Your task to perform on an android device: Show me popular games on the Play Store Image 0: 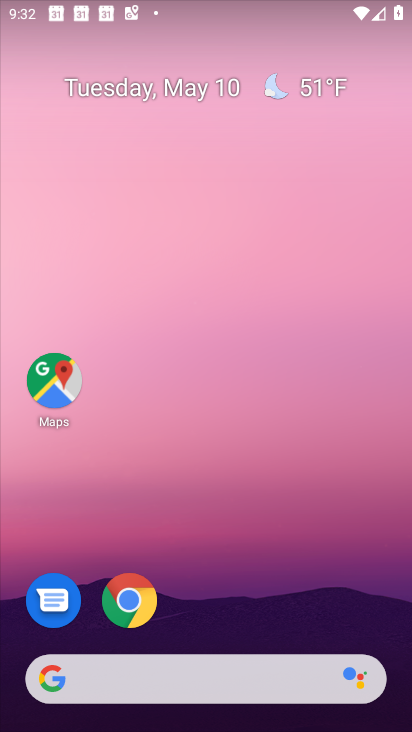
Step 0: drag from (265, 626) to (299, 13)
Your task to perform on an android device: Show me popular games on the Play Store Image 1: 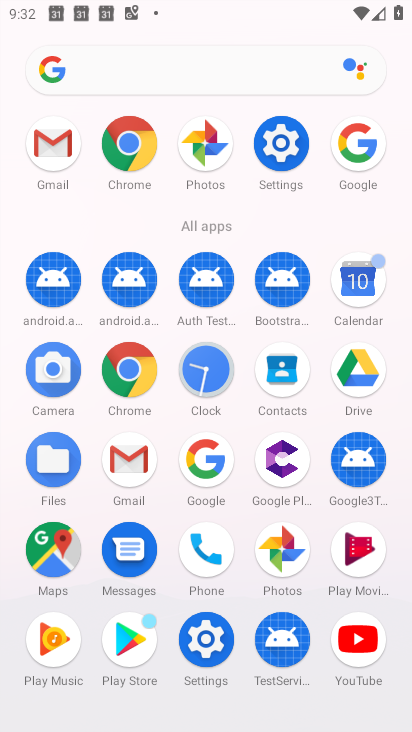
Step 1: drag from (346, 387) to (3, 328)
Your task to perform on an android device: Show me popular games on the Play Store Image 2: 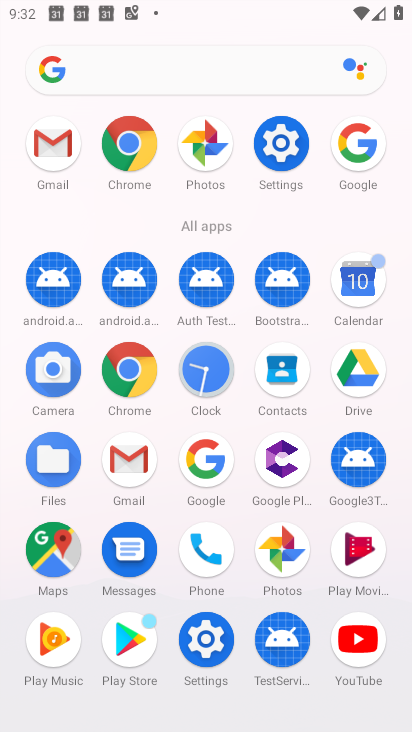
Step 2: drag from (242, 577) to (195, 116)
Your task to perform on an android device: Show me popular games on the Play Store Image 3: 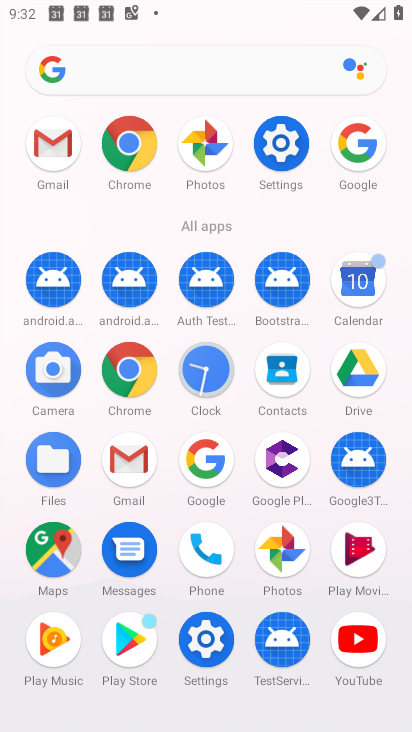
Step 3: click (127, 648)
Your task to perform on an android device: Show me popular games on the Play Store Image 4: 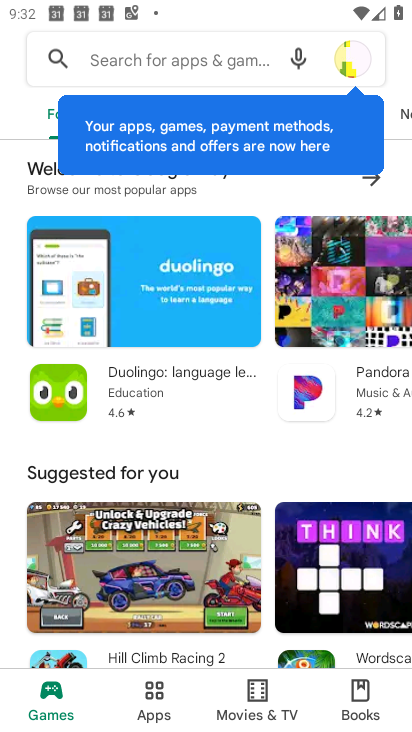
Step 4: click (355, 61)
Your task to perform on an android device: Show me popular games on the Play Store Image 5: 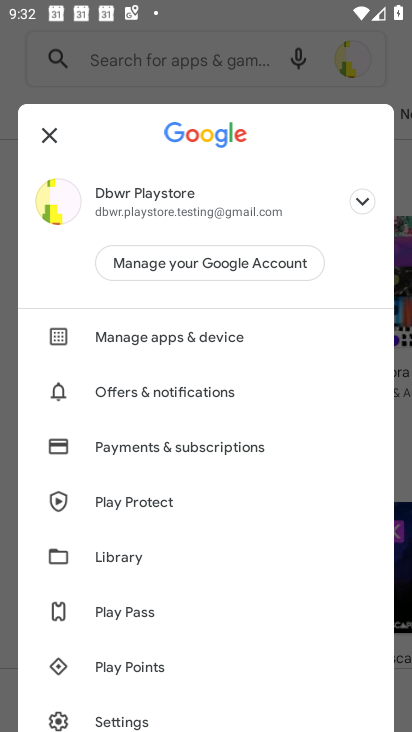
Step 5: click (148, 61)
Your task to perform on an android device: Show me popular games on the Play Store Image 6: 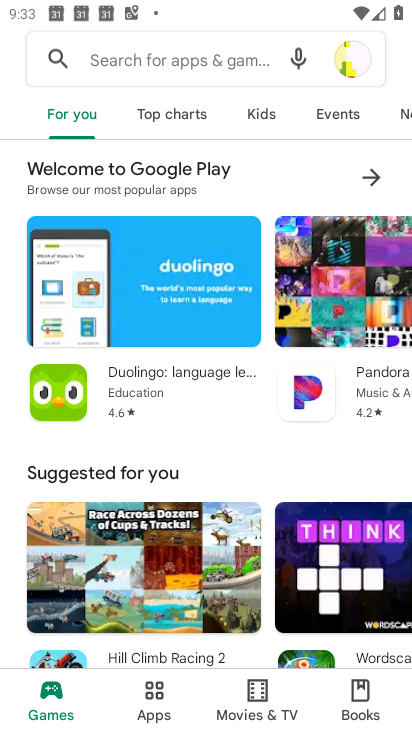
Step 6: click (121, 47)
Your task to perform on an android device: Show me popular games on the Play Store Image 7: 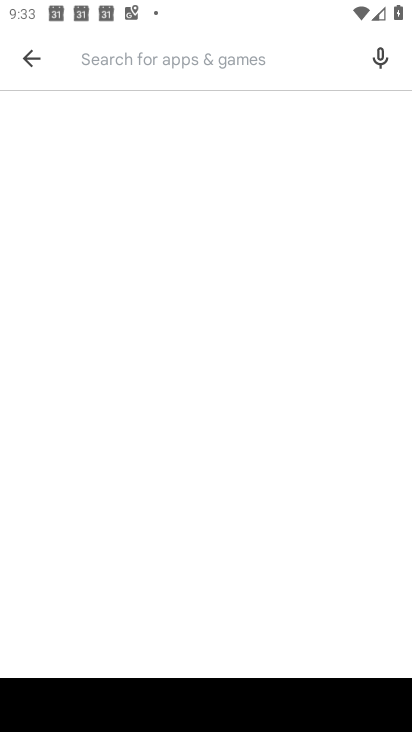
Step 7: click (119, 53)
Your task to perform on an android device: Show me popular games on the Play Store Image 8: 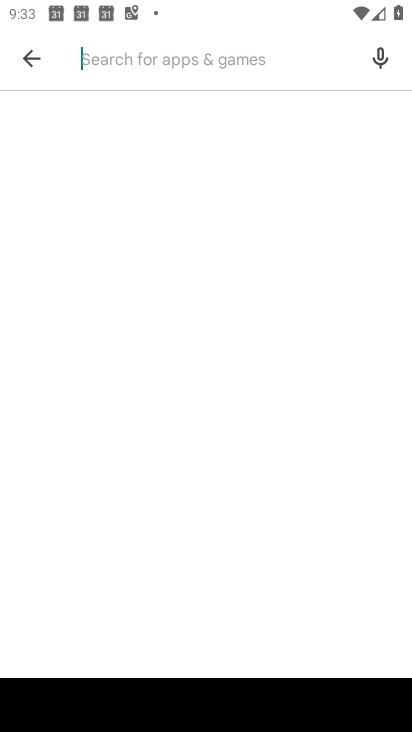
Step 8: type "popular games"
Your task to perform on an android device: Show me popular games on the Play Store Image 9: 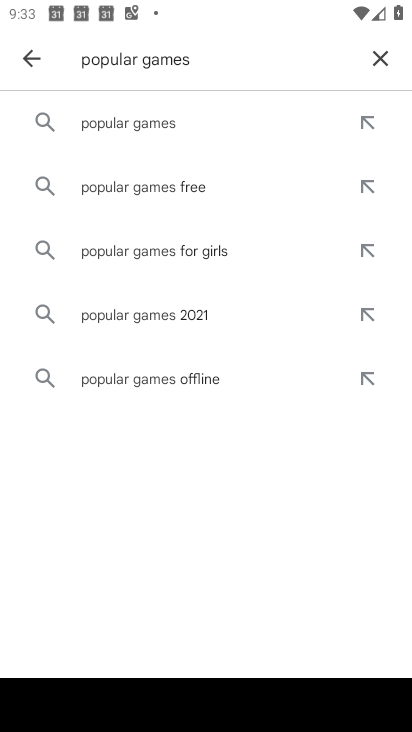
Step 9: click (117, 117)
Your task to perform on an android device: Show me popular games on the Play Store Image 10: 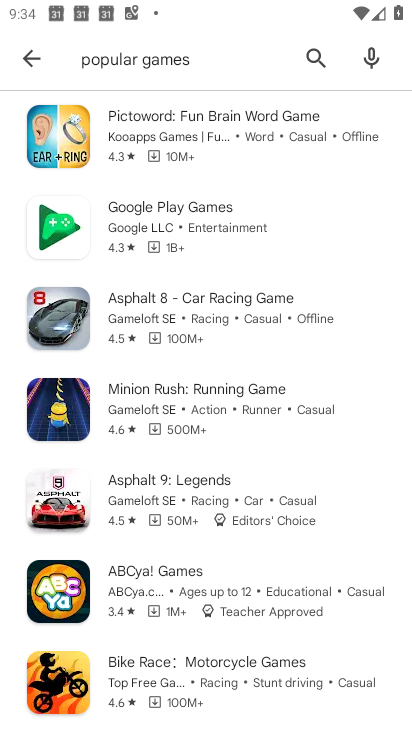
Step 10: task complete